Your task to perform on an android device: Show the shopping cart on walmart.com. Add bose quietcomfort 35 to the cart on walmart.com, then select checkout. Image 0: 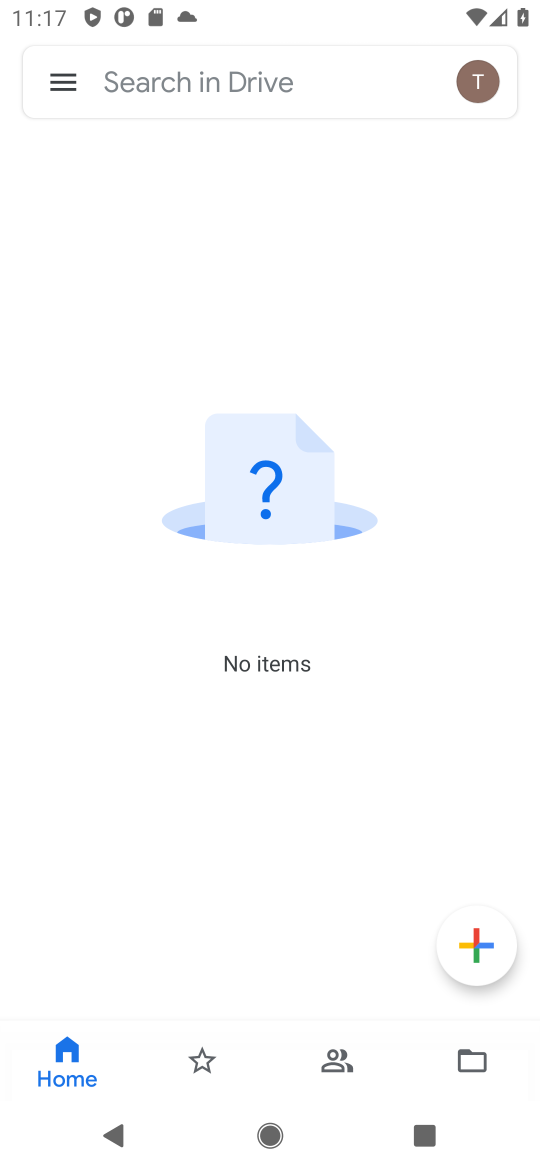
Step 0: press home button
Your task to perform on an android device: Show the shopping cart on walmart.com. Add bose quietcomfort 35 to the cart on walmart.com, then select checkout. Image 1: 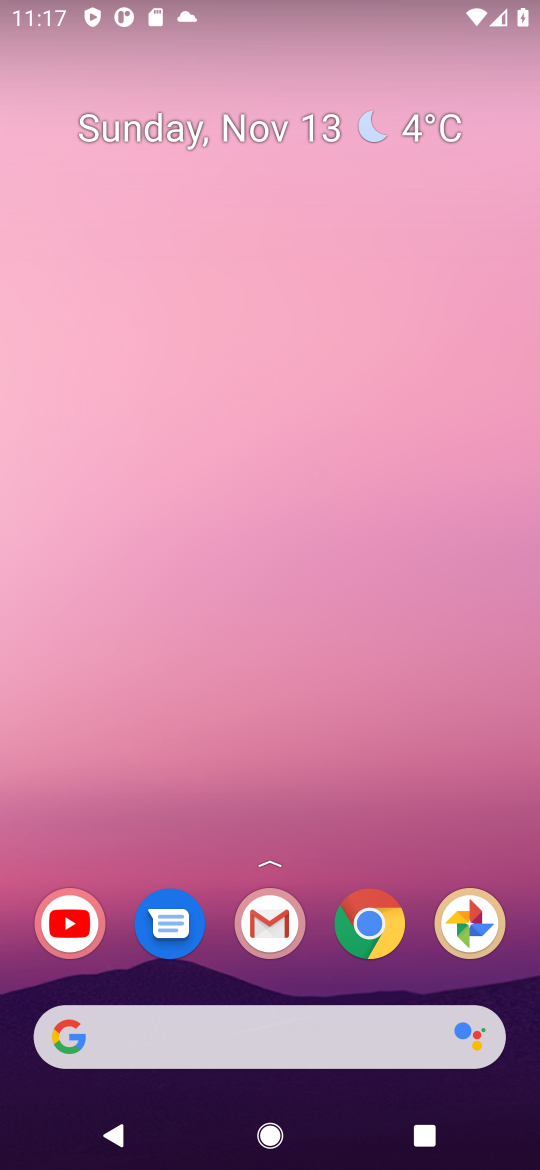
Step 1: click (368, 922)
Your task to perform on an android device: Show the shopping cart on walmart.com. Add bose quietcomfort 35 to the cart on walmart.com, then select checkout. Image 2: 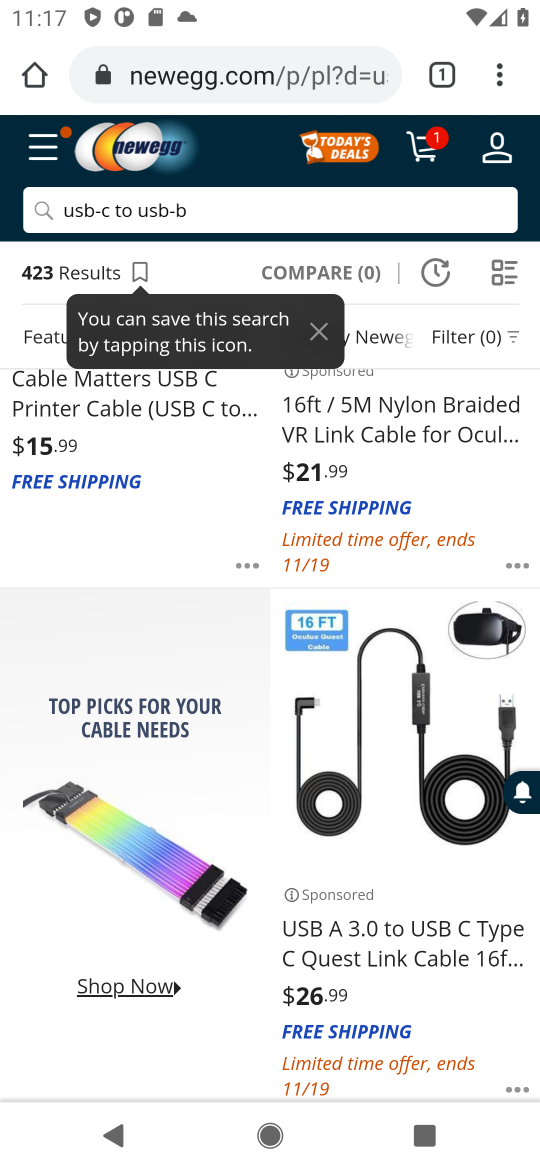
Step 2: click (239, 74)
Your task to perform on an android device: Show the shopping cart on walmart.com. Add bose quietcomfort 35 to the cart on walmart.com, then select checkout. Image 3: 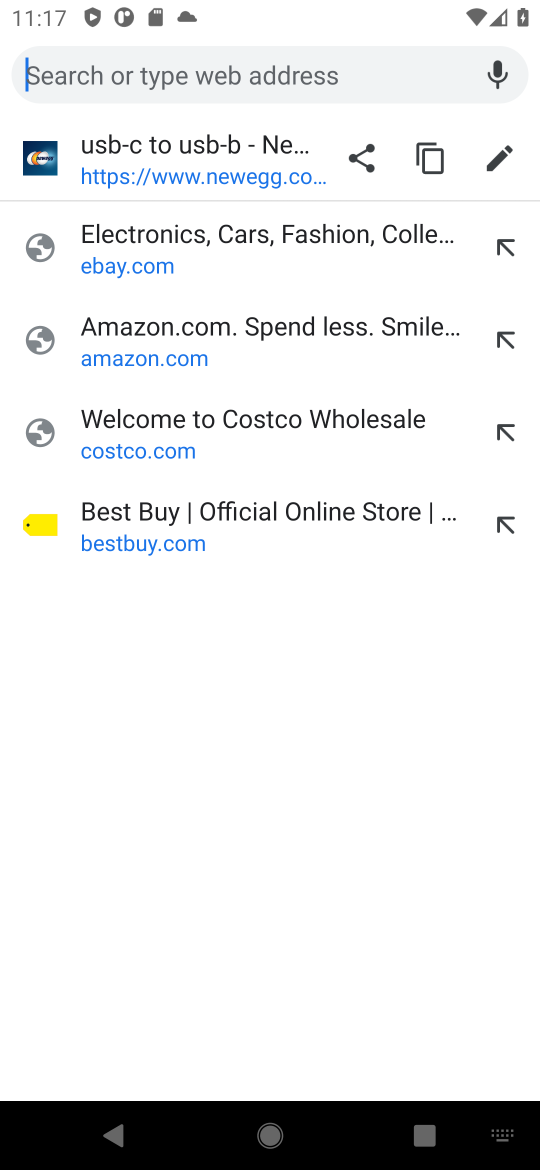
Step 3: type "walmart.com"
Your task to perform on an android device: Show the shopping cart on walmart.com. Add bose quietcomfort 35 to the cart on walmart.com, then select checkout. Image 4: 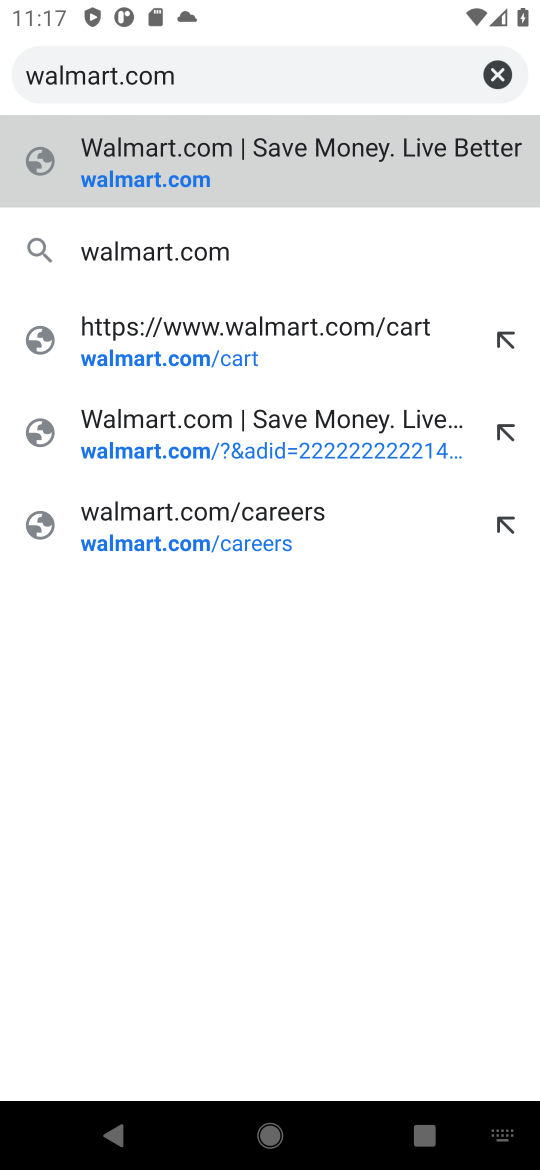
Step 4: press enter
Your task to perform on an android device: Show the shopping cart on walmart.com. Add bose quietcomfort 35 to the cart on walmart.com, then select checkout. Image 5: 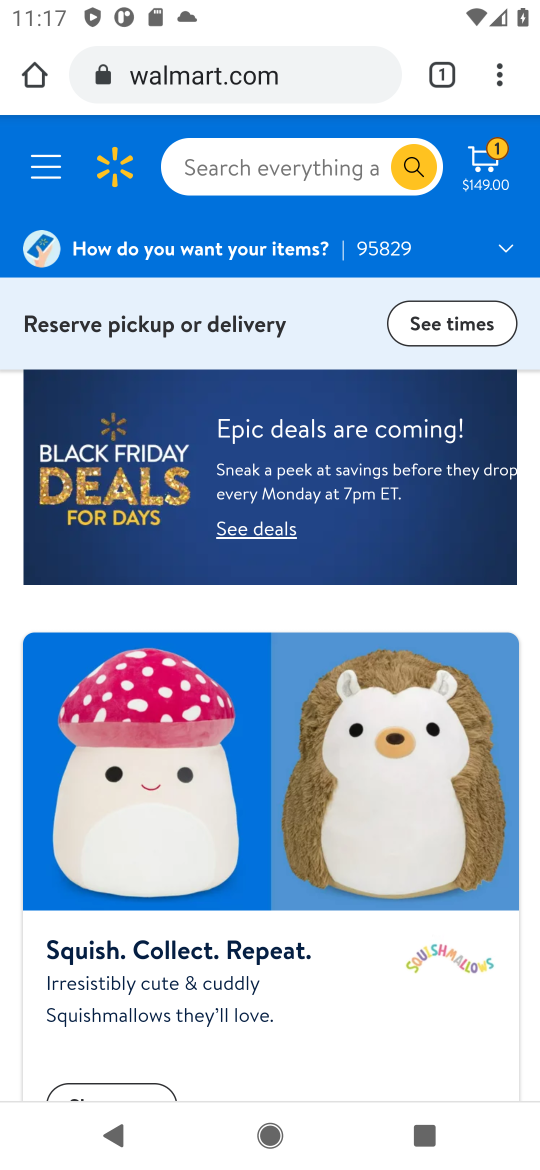
Step 5: click (292, 146)
Your task to perform on an android device: Show the shopping cart on walmart.com. Add bose quietcomfort 35 to the cart on walmart.com, then select checkout. Image 6: 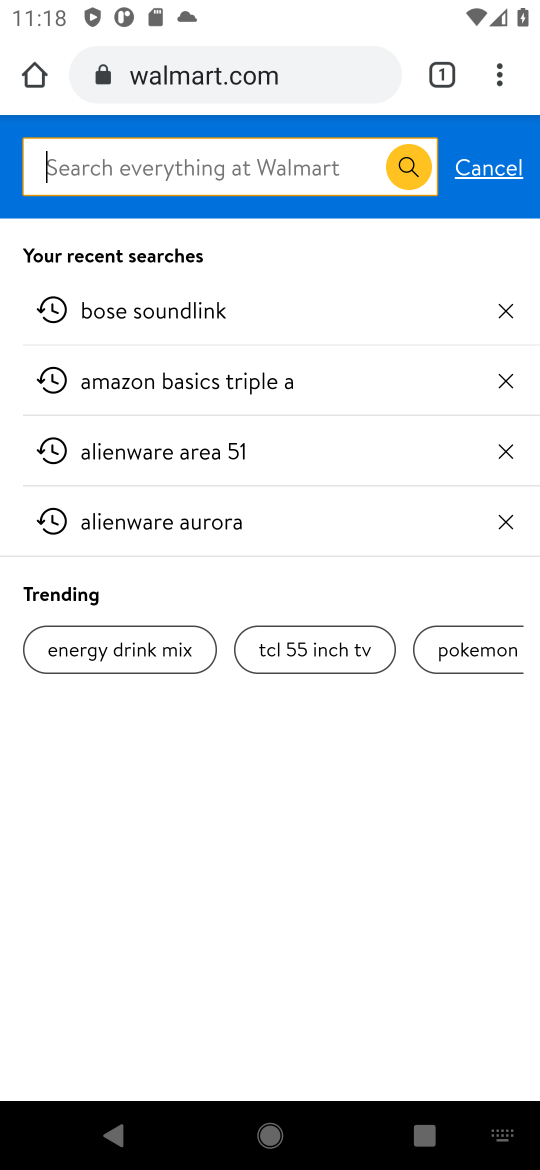
Step 6: type "bose quietcomfort 35"
Your task to perform on an android device: Show the shopping cart on walmart.com. Add bose quietcomfort 35 to the cart on walmart.com, then select checkout. Image 7: 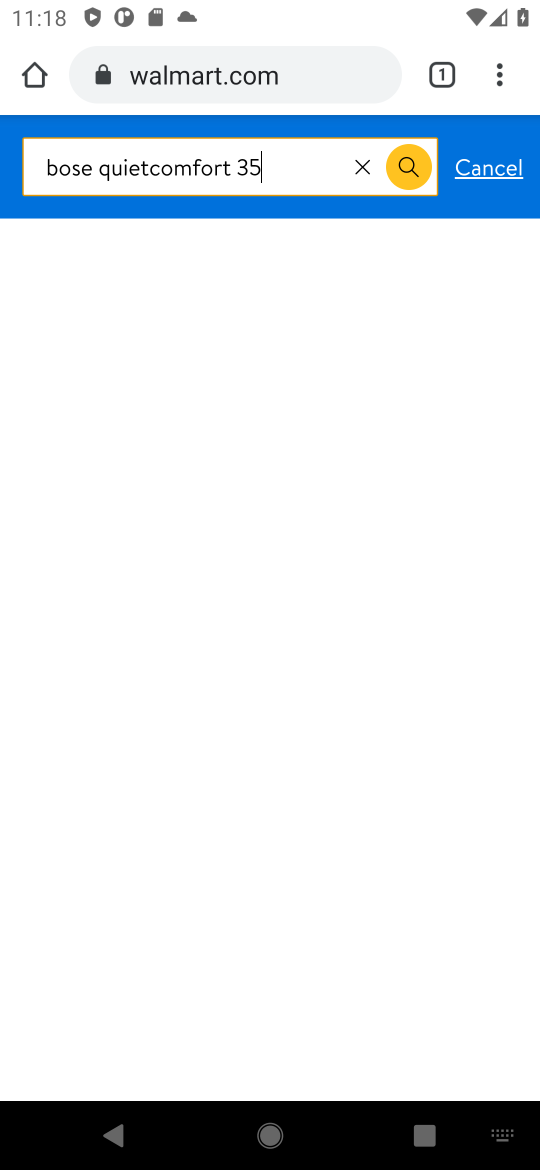
Step 7: press enter
Your task to perform on an android device: Show the shopping cart on walmart.com. Add bose quietcomfort 35 to the cart on walmart.com, then select checkout. Image 8: 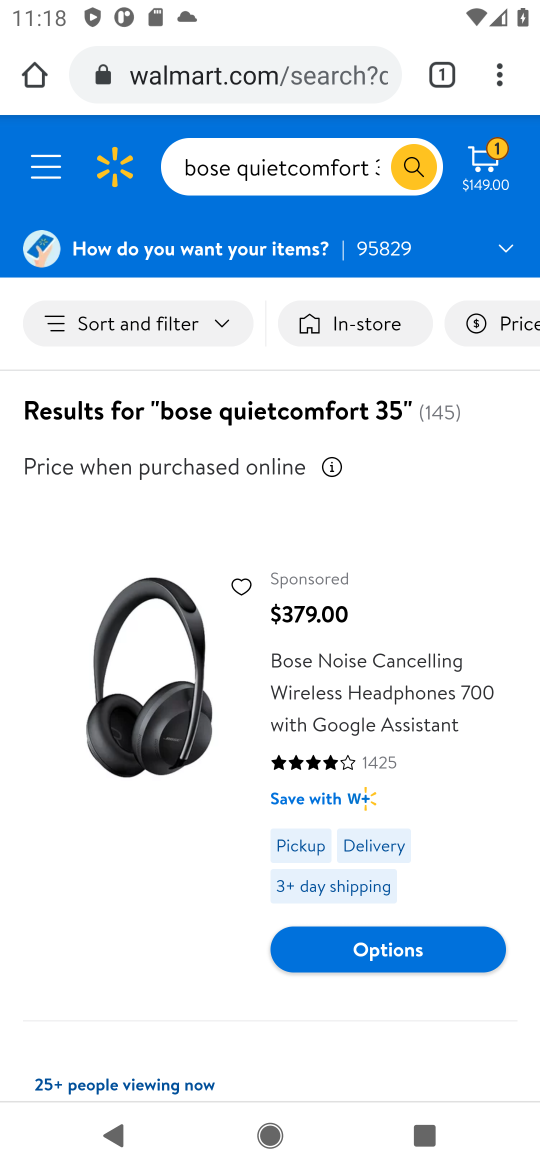
Step 8: drag from (444, 811) to (416, 422)
Your task to perform on an android device: Show the shopping cart on walmart.com. Add bose quietcomfort 35 to the cart on walmart.com, then select checkout. Image 9: 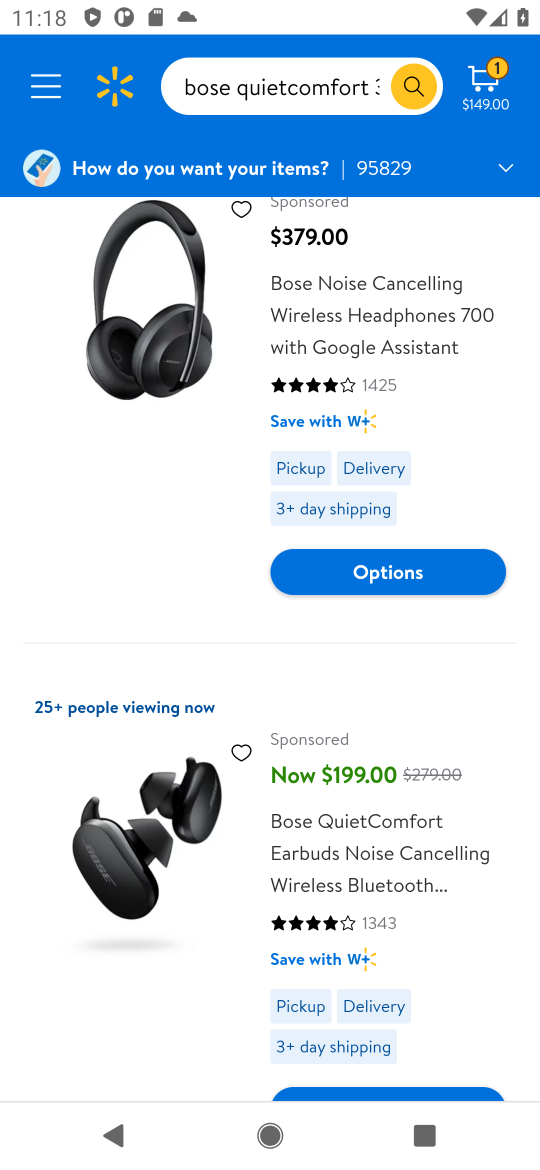
Step 9: drag from (476, 868) to (451, 624)
Your task to perform on an android device: Show the shopping cart on walmart.com. Add bose quietcomfort 35 to the cart on walmart.com, then select checkout. Image 10: 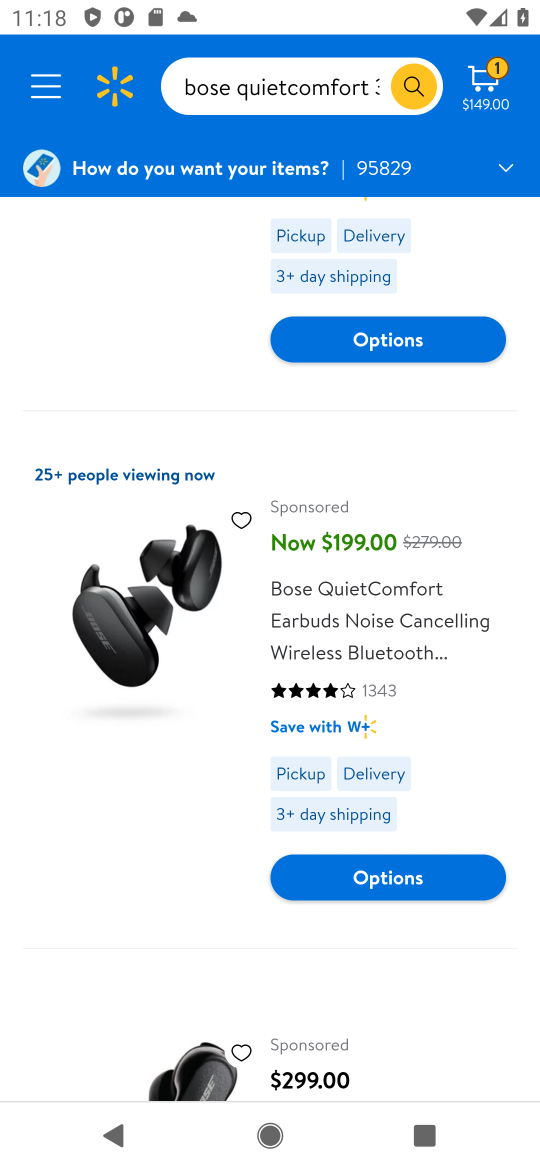
Step 10: drag from (428, 971) to (396, 476)
Your task to perform on an android device: Show the shopping cart on walmart.com. Add bose quietcomfort 35 to the cart on walmart.com, then select checkout. Image 11: 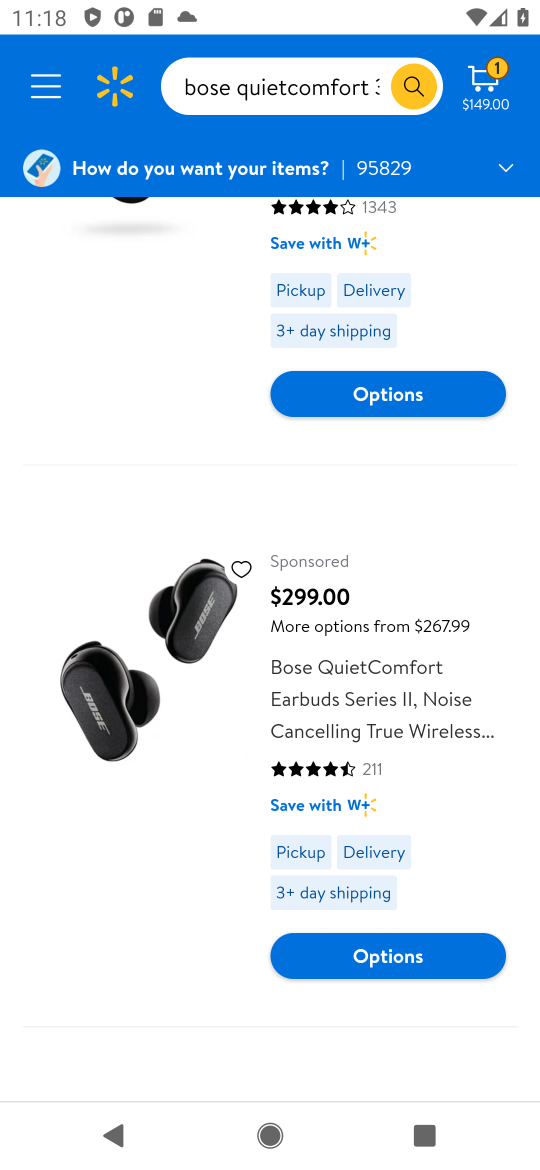
Step 11: drag from (436, 753) to (357, 314)
Your task to perform on an android device: Show the shopping cart on walmart.com. Add bose quietcomfort 35 to the cart on walmart.com, then select checkout. Image 12: 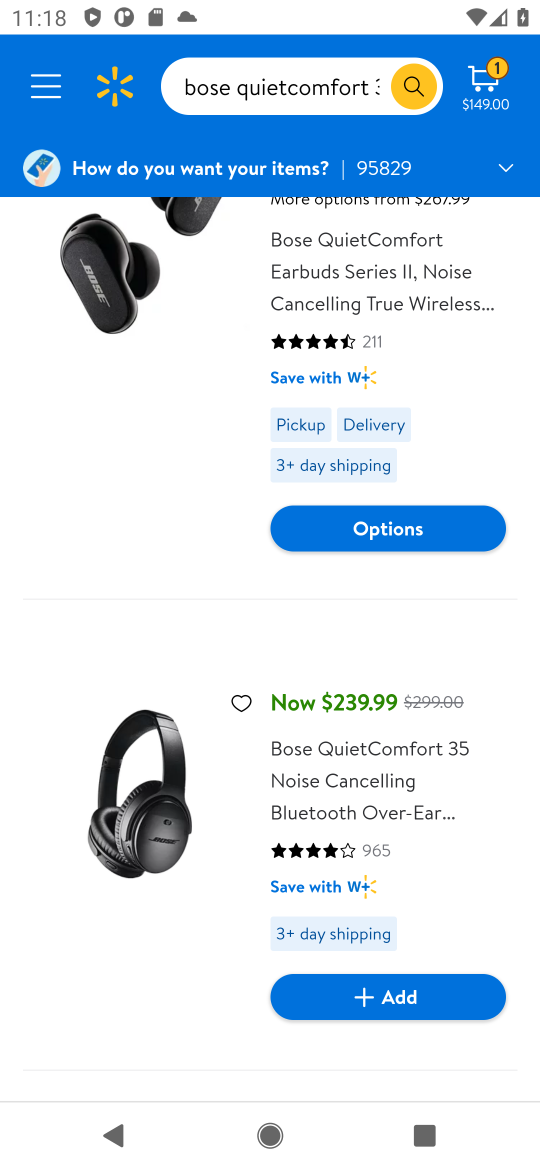
Step 12: click (132, 834)
Your task to perform on an android device: Show the shopping cart on walmart.com. Add bose quietcomfort 35 to the cart on walmart.com, then select checkout. Image 13: 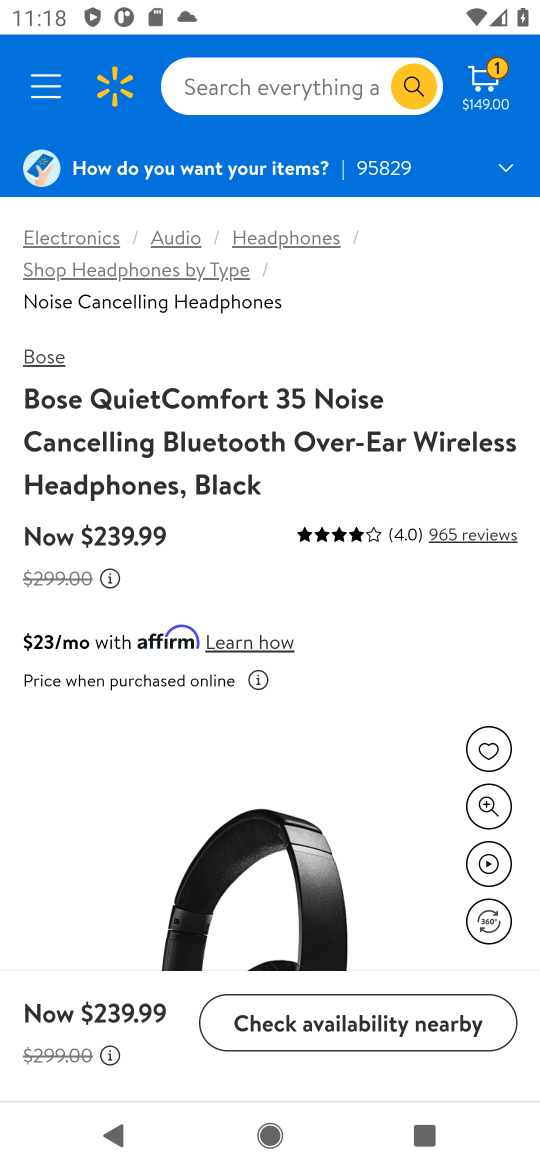
Step 13: drag from (317, 866) to (223, 279)
Your task to perform on an android device: Show the shopping cart on walmart.com. Add bose quietcomfort 35 to the cart on walmart.com, then select checkout. Image 14: 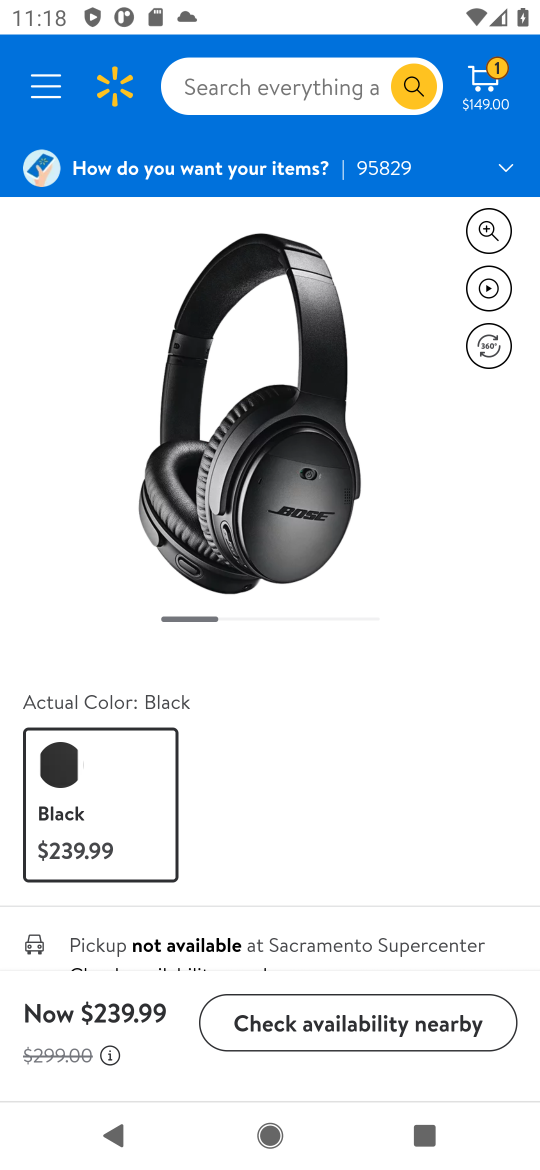
Step 14: drag from (372, 759) to (343, 448)
Your task to perform on an android device: Show the shopping cart on walmart.com. Add bose quietcomfort 35 to the cart on walmart.com, then select checkout. Image 15: 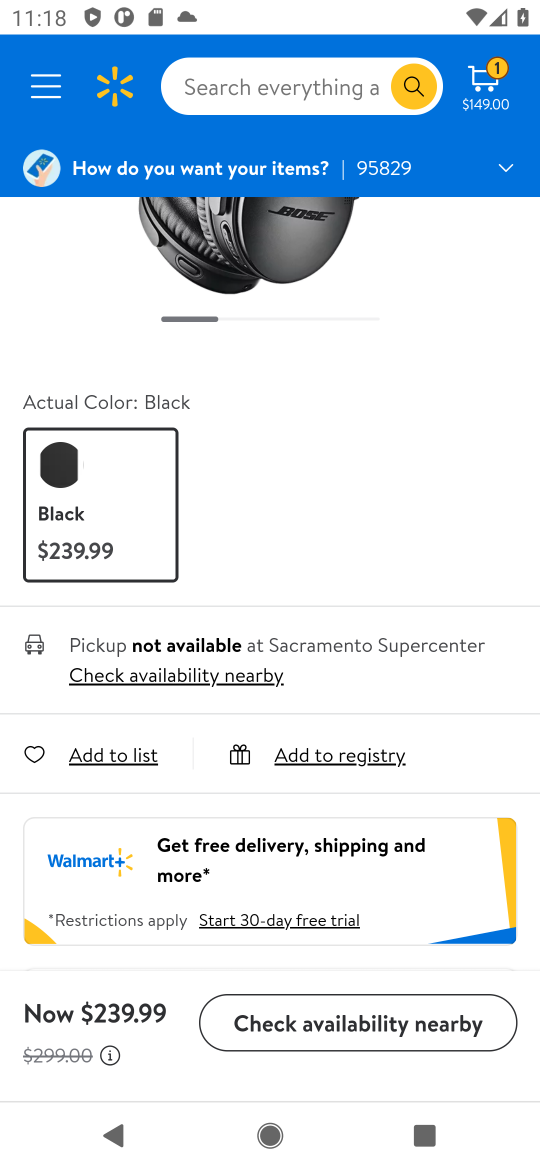
Step 15: drag from (398, 859) to (393, 418)
Your task to perform on an android device: Show the shopping cart on walmart.com. Add bose quietcomfort 35 to the cart on walmart.com, then select checkout. Image 16: 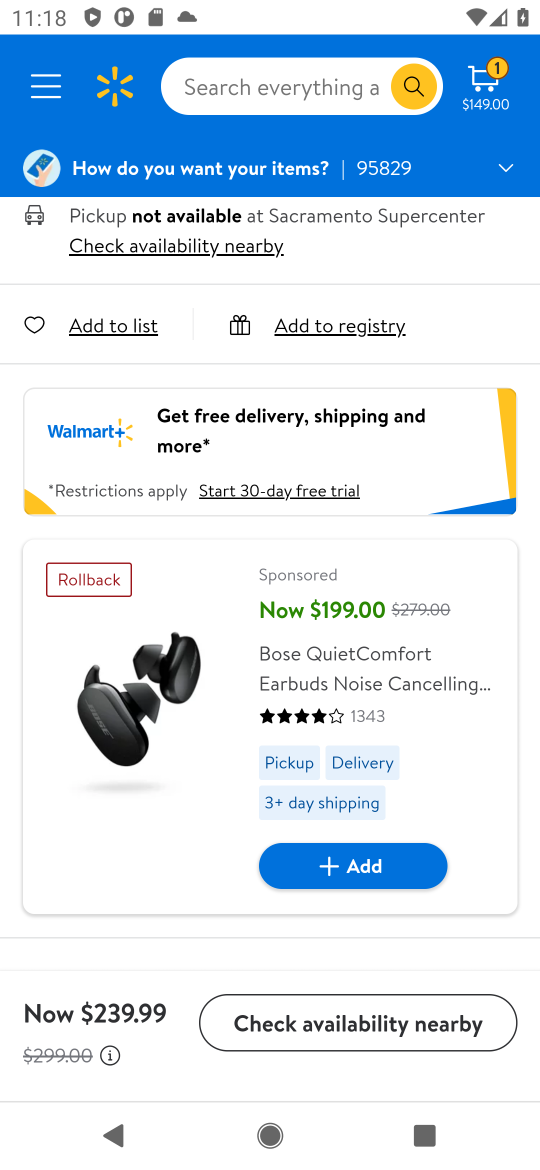
Step 16: drag from (468, 904) to (440, 341)
Your task to perform on an android device: Show the shopping cart on walmart.com. Add bose quietcomfort 35 to the cart on walmart.com, then select checkout. Image 17: 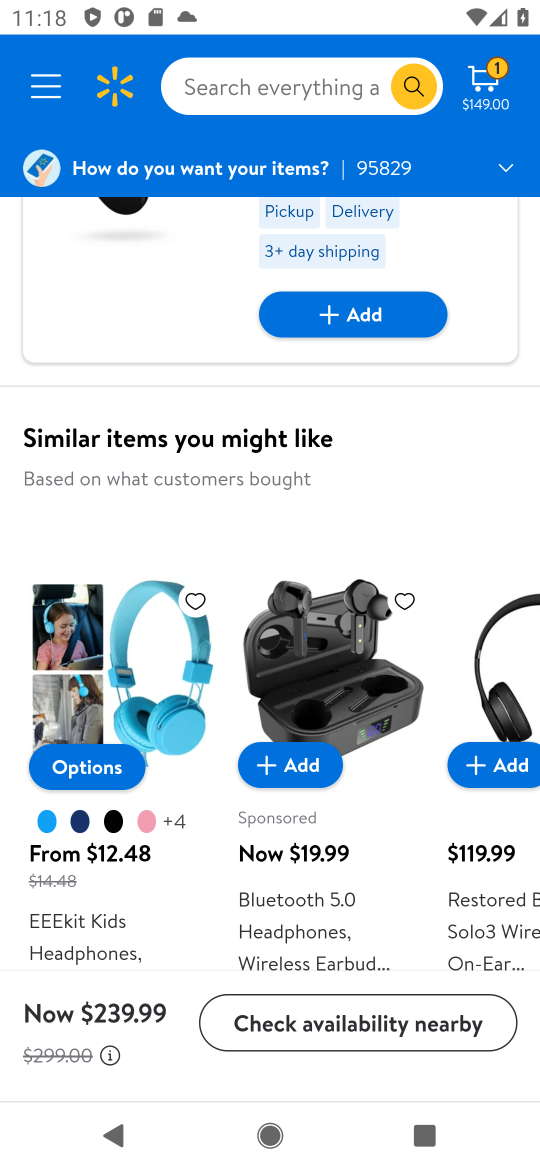
Step 17: press back button
Your task to perform on an android device: Show the shopping cart on walmart.com. Add bose quietcomfort 35 to the cart on walmart.com, then select checkout. Image 18: 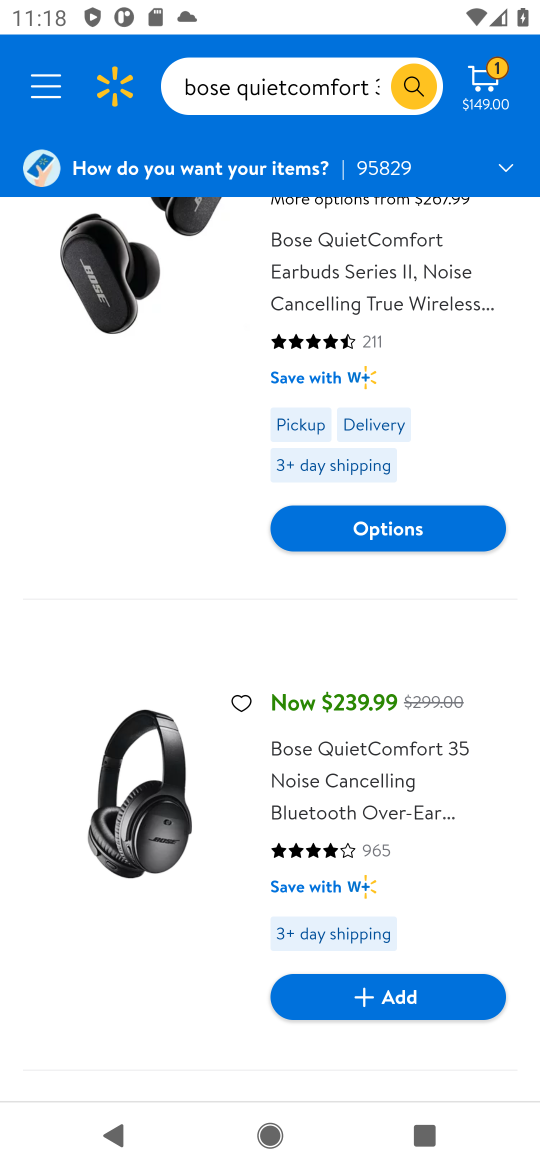
Step 18: drag from (494, 899) to (484, 442)
Your task to perform on an android device: Show the shopping cart on walmart.com. Add bose quietcomfort 35 to the cart on walmart.com, then select checkout. Image 19: 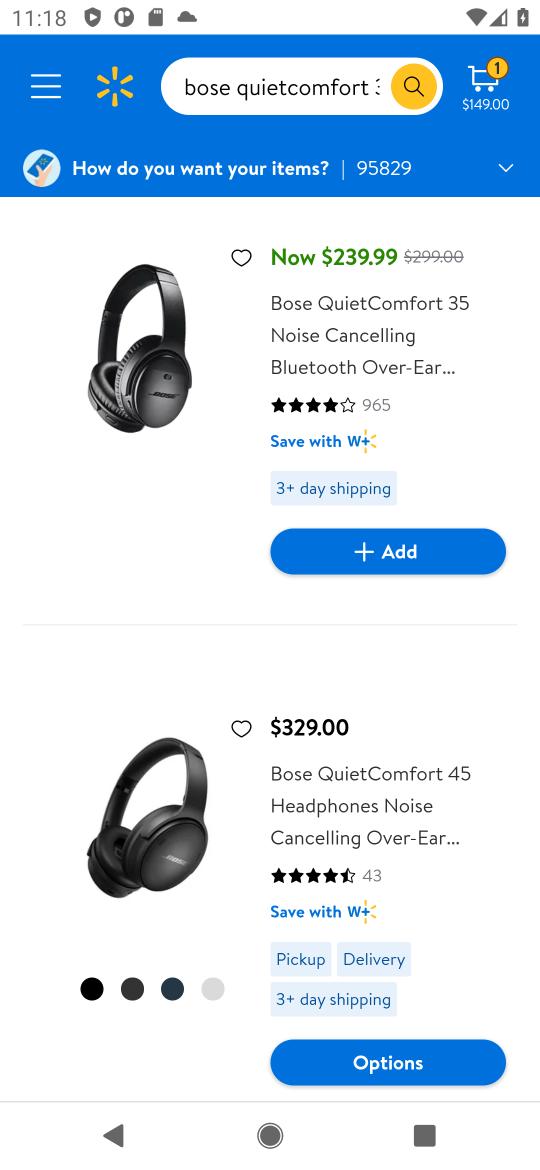
Step 19: drag from (492, 972) to (497, 601)
Your task to perform on an android device: Show the shopping cart on walmart.com. Add bose quietcomfort 35 to the cart on walmart.com, then select checkout. Image 20: 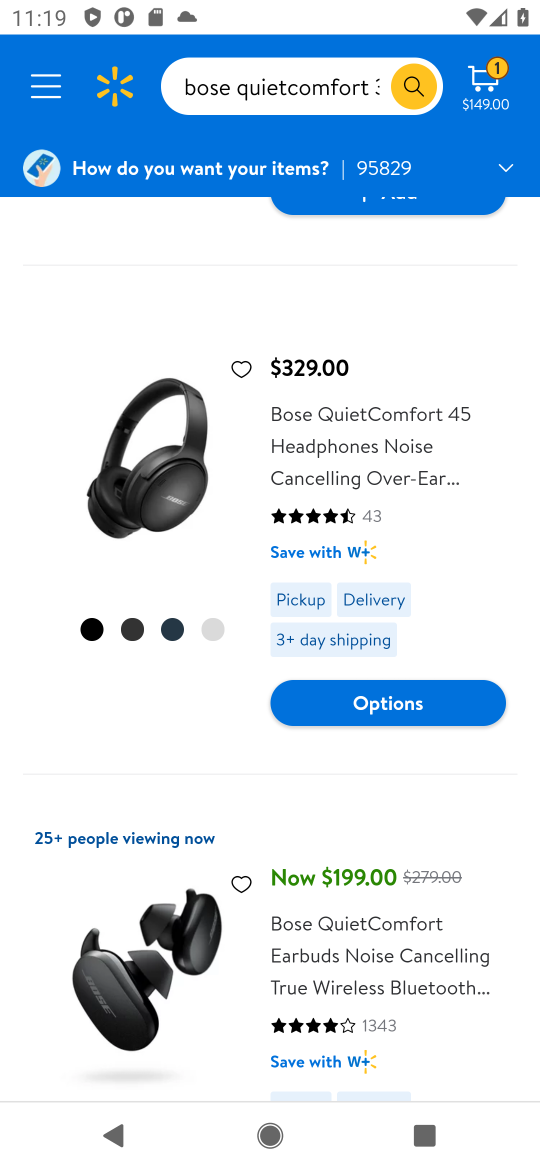
Step 20: drag from (484, 915) to (483, 263)
Your task to perform on an android device: Show the shopping cart on walmart.com. Add bose quietcomfort 35 to the cart on walmart.com, then select checkout. Image 21: 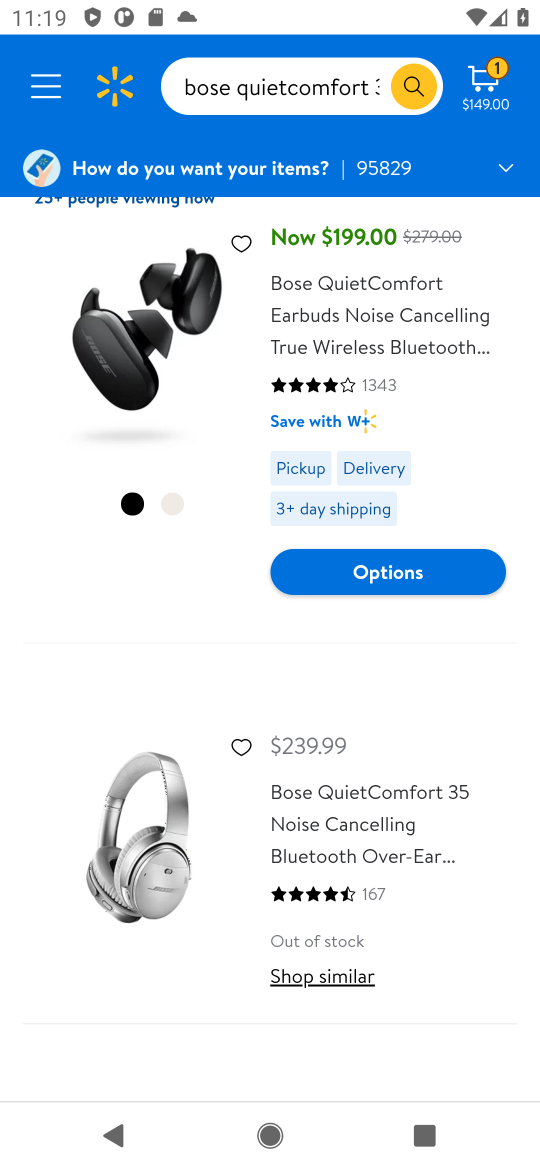
Step 21: click (154, 832)
Your task to perform on an android device: Show the shopping cart on walmart.com. Add bose quietcomfort 35 to the cart on walmart.com, then select checkout. Image 22: 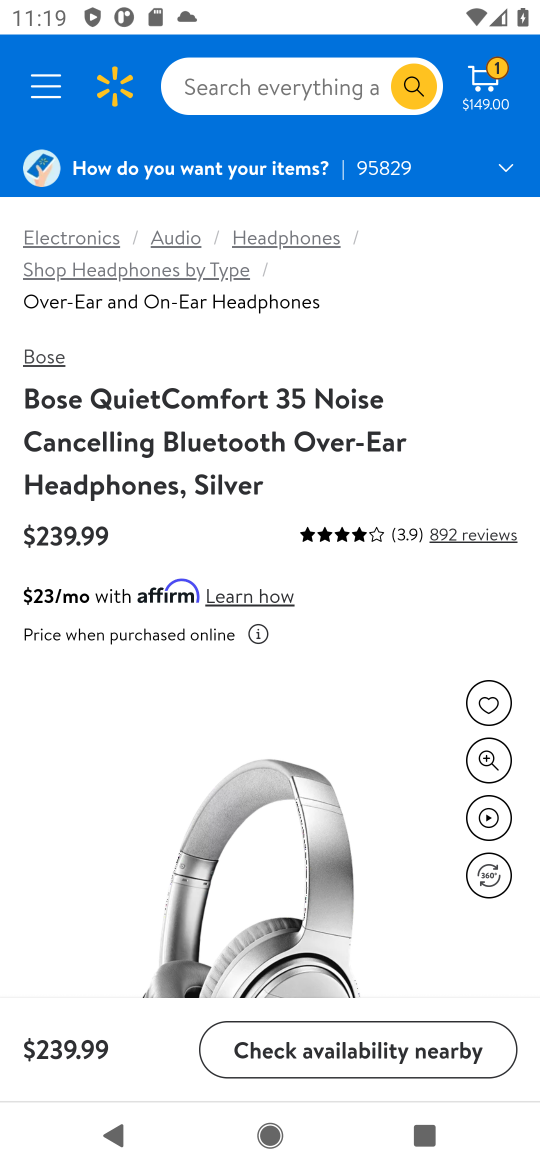
Step 22: task complete